Your task to perform on an android device: Open Chrome and go to settings Image 0: 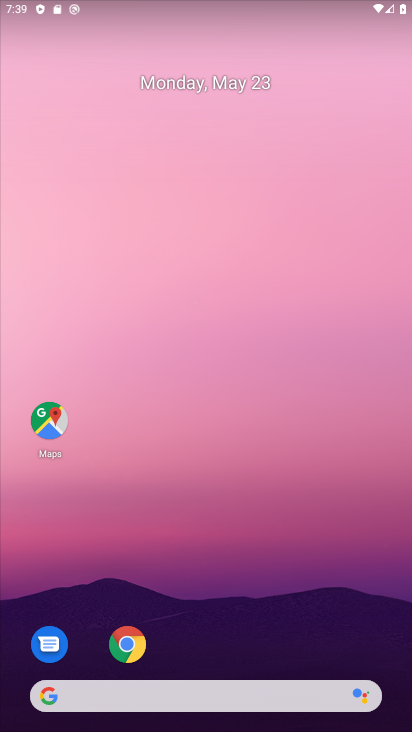
Step 0: press home button
Your task to perform on an android device: Open Chrome and go to settings Image 1: 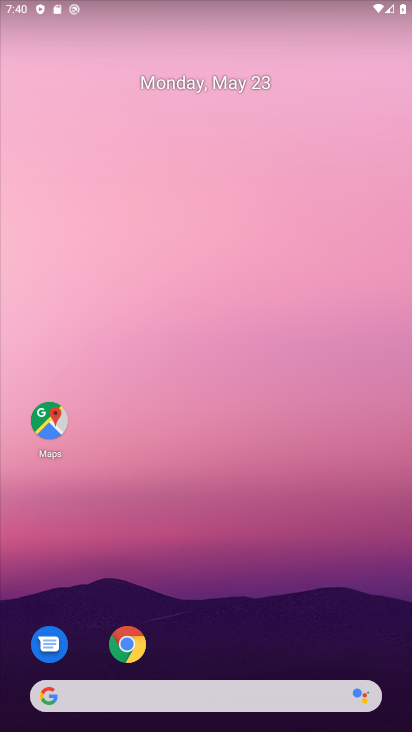
Step 1: click (129, 650)
Your task to perform on an android device: Open Chrome and go to settings Image 2: 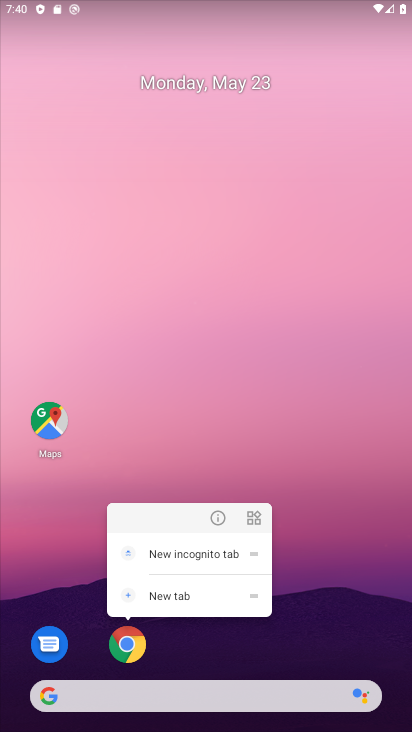
Step 2: click (125, 647)
Your task to perform on an android device: Open Chrome and go to settings Image 3: 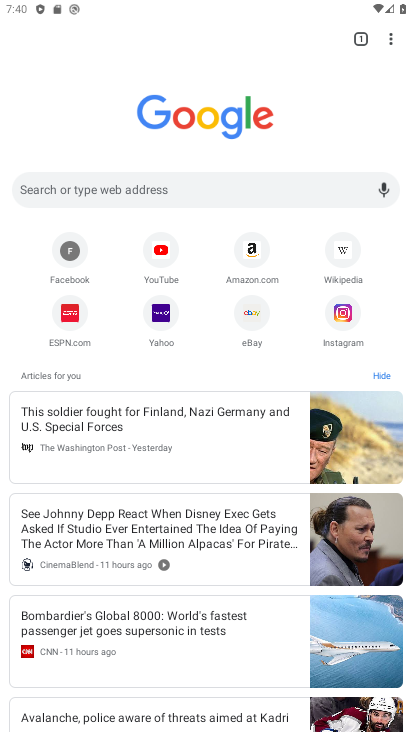
Step 3: click (390, 41)
Your task to perform on an android device: Open Chrome and go to settings Image 4: 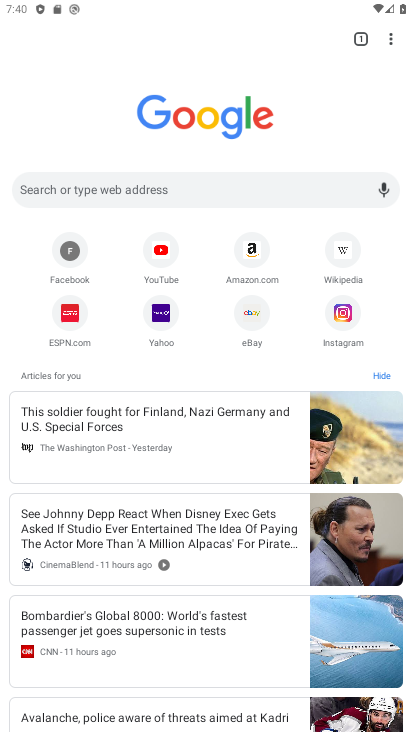
Step 4: click (387, 43)
Your task to perform on an android device: Open Chrome and go to settings Image 5: 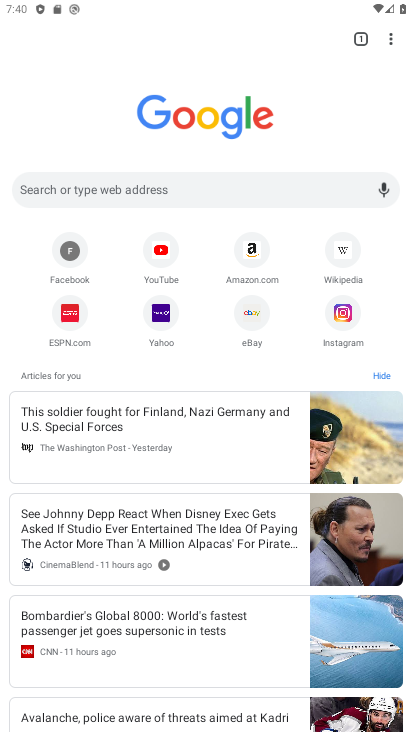
Step 5: click (395, 39)
Your task to perform on an android device: Open Chrome and go to settings Image 6: 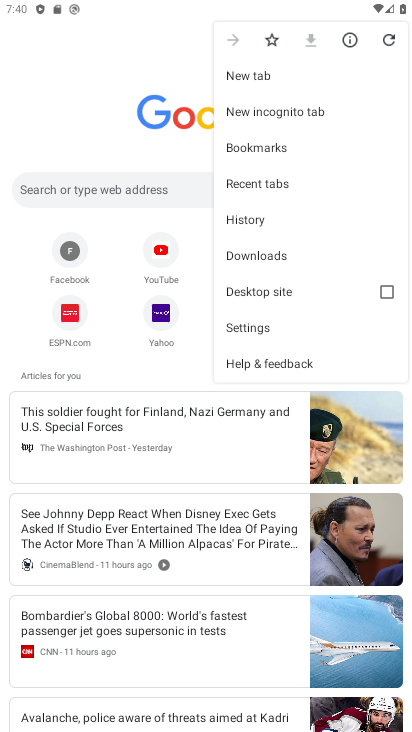
Step 6: click (248, 322)
Your task to perform on an android device: Open Chrome and go to settings Image 7: 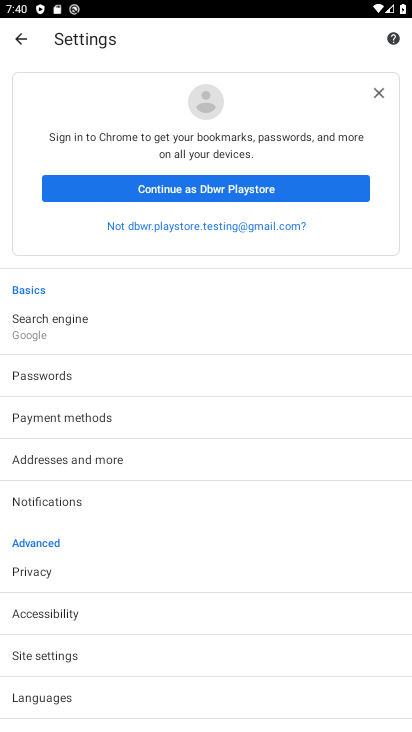
Step 7: task complete